Your task to perform on an android device: Open ESPN.com Image 0: 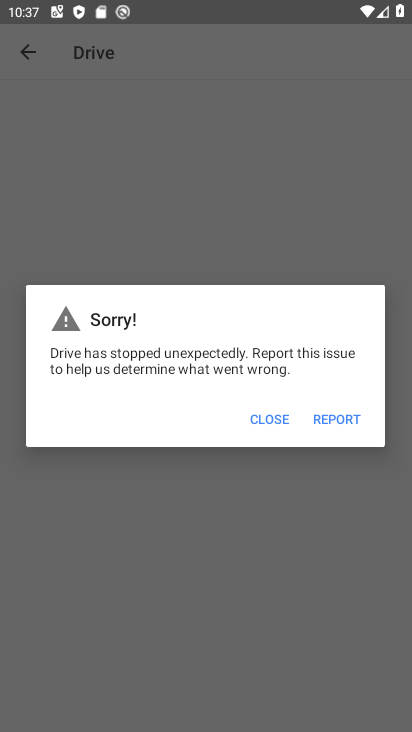
Step 0: press home button
Your task to perform on an android device: Open ESPN.com Image 1: 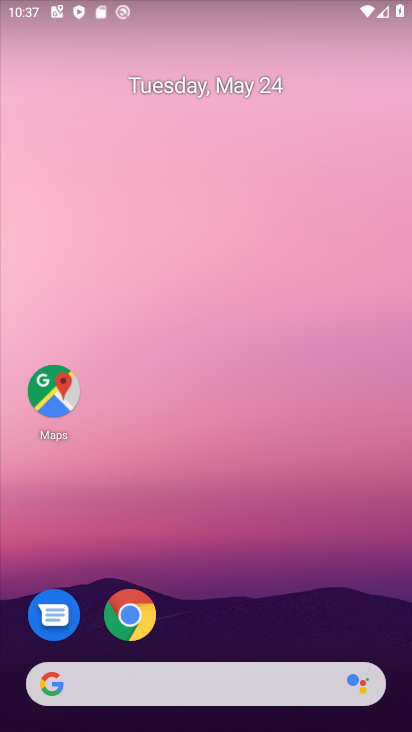
Step 1: click (137, 618)
Your task to perform on an android device: Open ESPN.com Image 2: 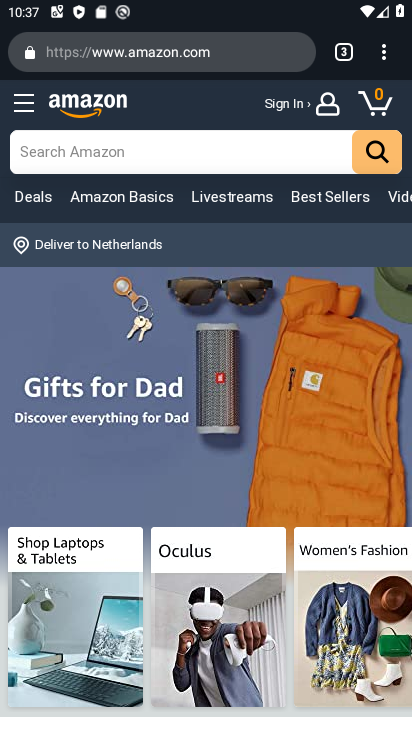
Step 2: click (343, 58)
Your task to perform on an android device: Open ESPN.com Image 3: 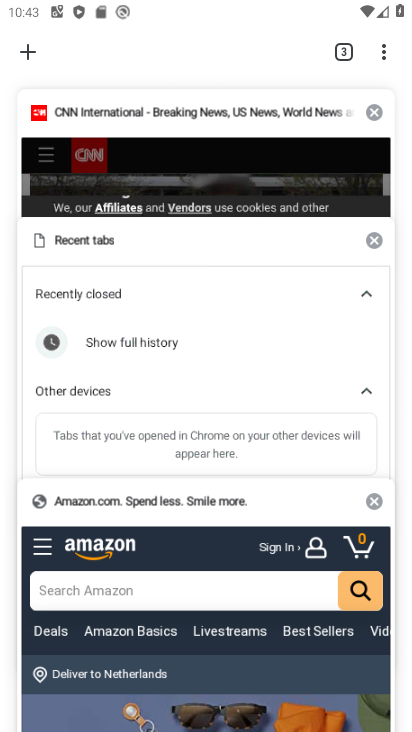
Step 3: click (23, 53)
Your task to perform on an android device: Open ESPN.com Image 4: 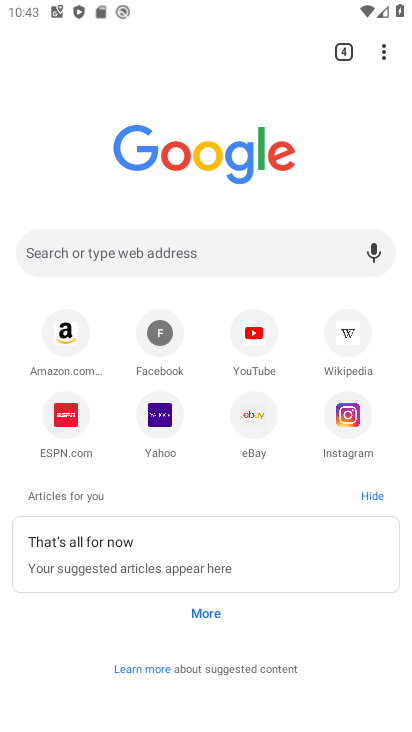
Step 4: click (60, 402)
Your task to perform on an android device: Open ESPN.com Image 5: 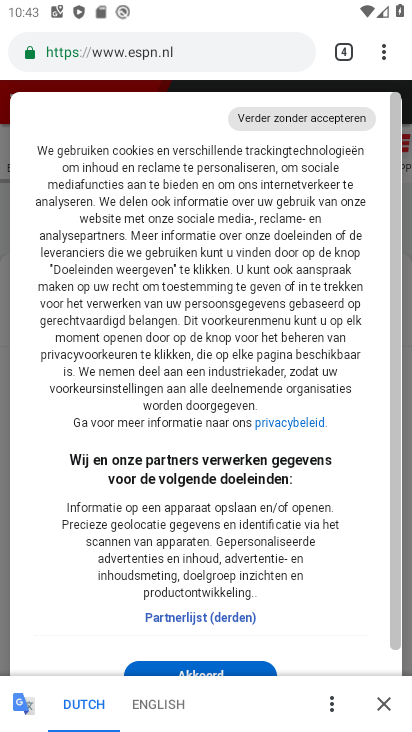
Step 5: task complete